Your task to perform on an android device: Check the weather Image 0: 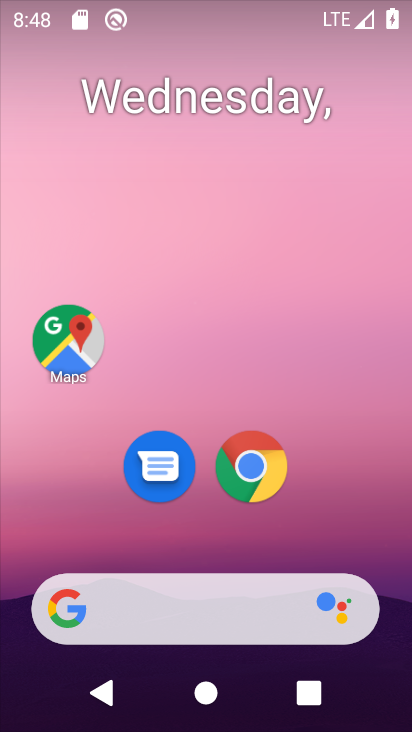
Step 0: drag from (219, 727) to (223, 258)
Your task to perform on an android device: Check the weather Image 1: 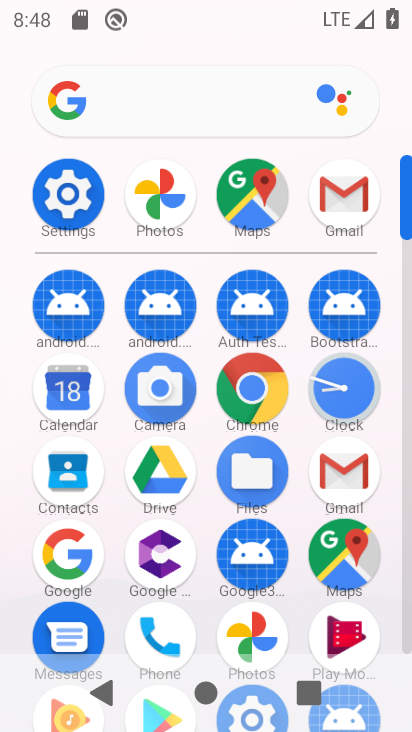
Step 1: click (66, 562)
Your task to perform on an android device: Check the weather Image 2: 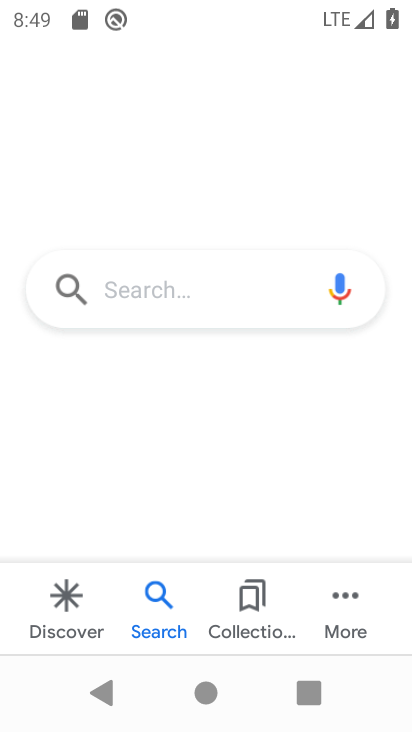
Step 2: drag from (220, 526) to (220, 290)
Your task to perform on an android device: Check the weather Image 3: 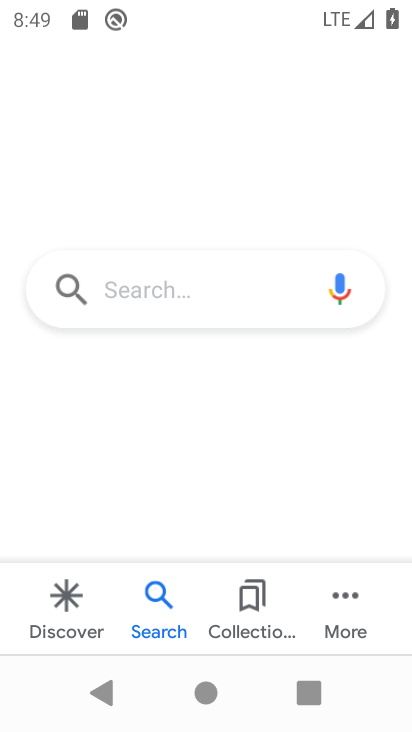
Step 3: click (210, 293)
Your task to perform on an android device: Check the weather Image 4: 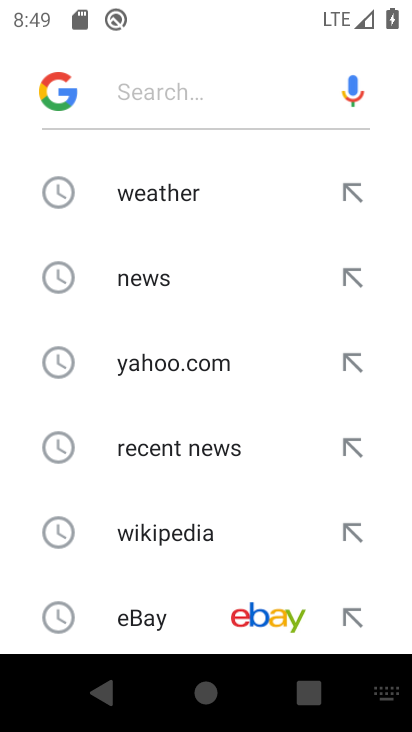
Step 4: click (158, 191)
Your task to perform on an android device: Check the weather Image 5: 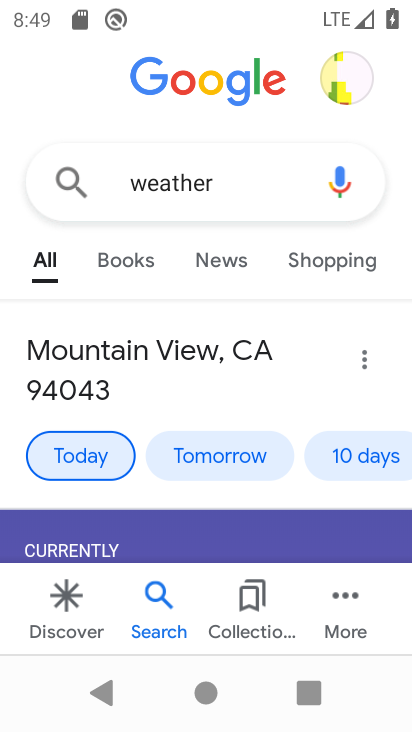
Step 5: task complete